Your task to perform on an android device: see creations saved in the google photos Image 0: 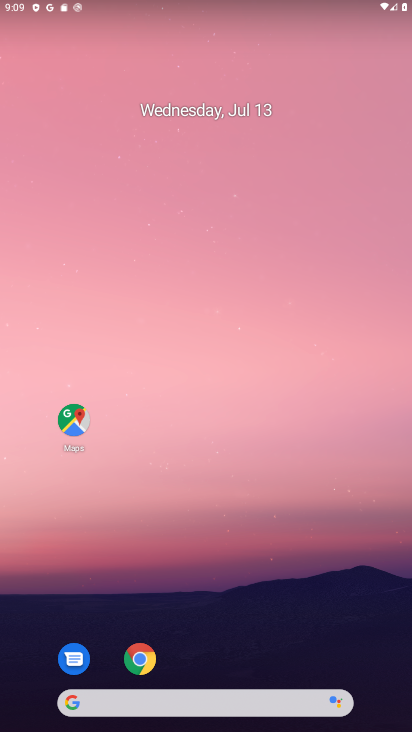
Step 0: drag from (233, 632) to (262, 174)
Your task to perform on an android device: see creations saved in the google photos Image 1: 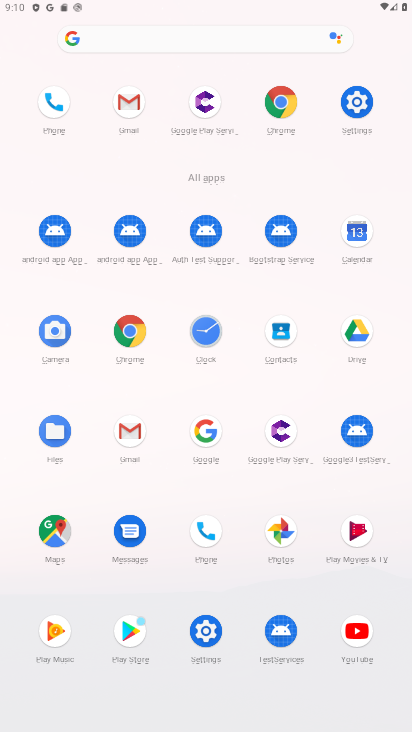
Step 1: click (269, 533)
Your task to perform on an android device: see creations saved in the google photos Image 2: 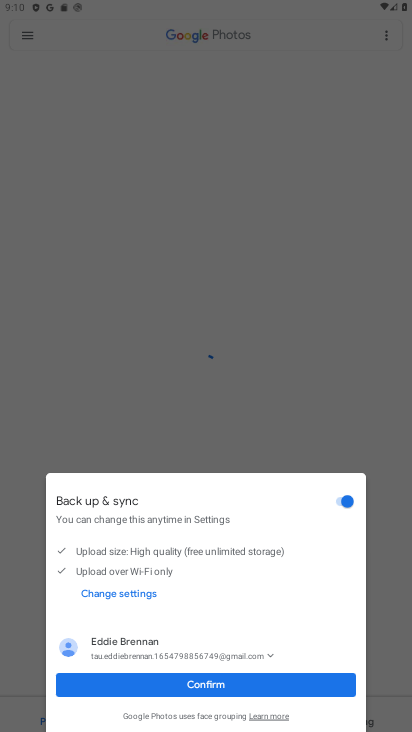
Step 2: click (216, 685)
Your task to perform on an android device: see creations saved in the google photos Image 3: 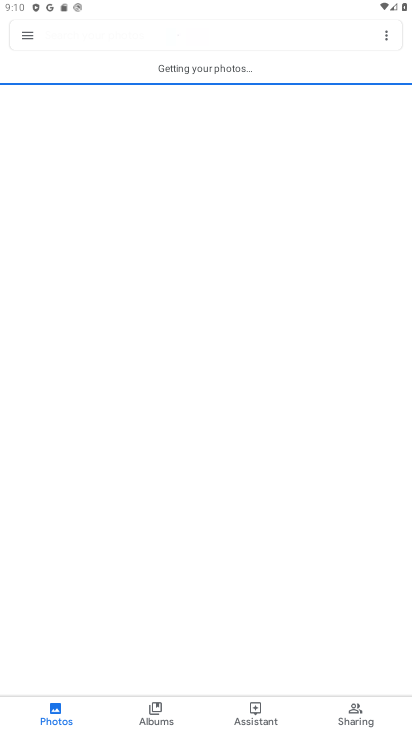
Step 3: click (21, 31)
Your task to perform on an android device: see creations saved in the google photos Image 4: 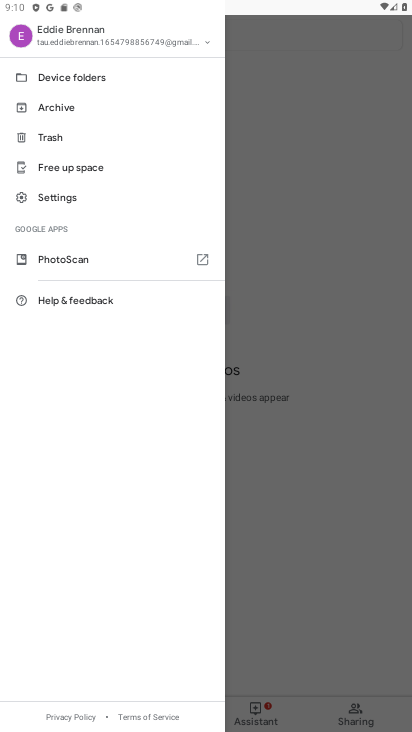
Step 4: click (76, 201)
Your task to perform on an android device: see creations saved in the google photos Image 5: 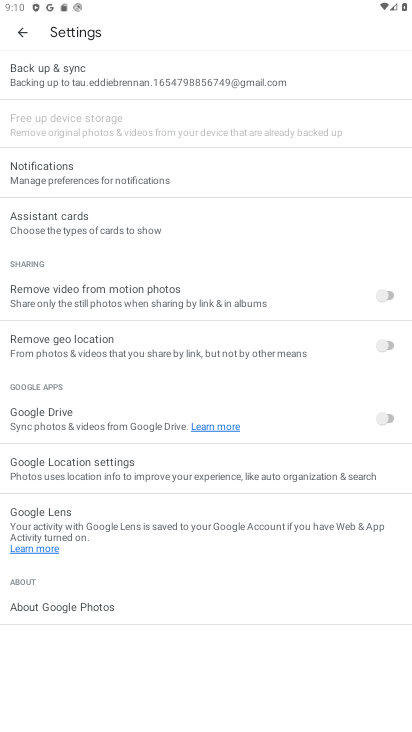
Step 5: click (14, 20)
Your task to perform on an android device: see creations saved in the google photos Image 6: 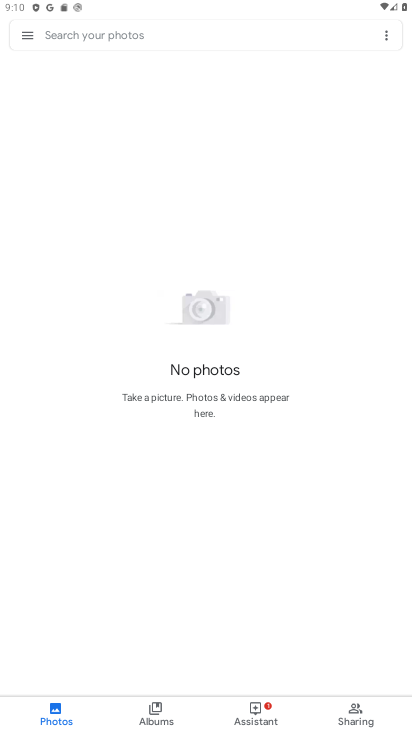
Step 6: click (151, 706)
Your task to perform on an android device: see creations saved in the google photos Image 7: 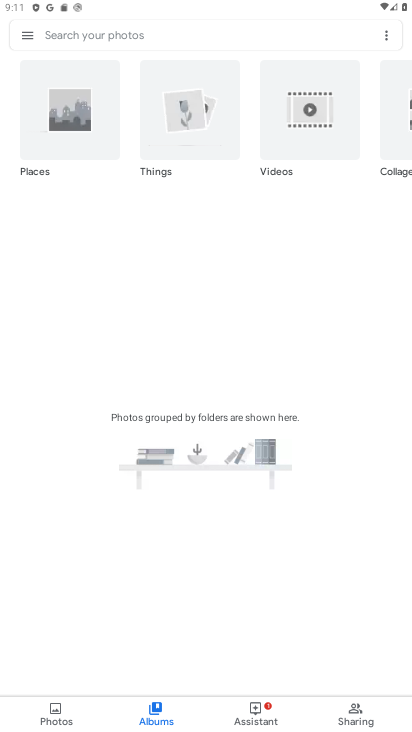
Step 7: task complete